Your task to perform on an android device: When is my next meeting? Image 0: 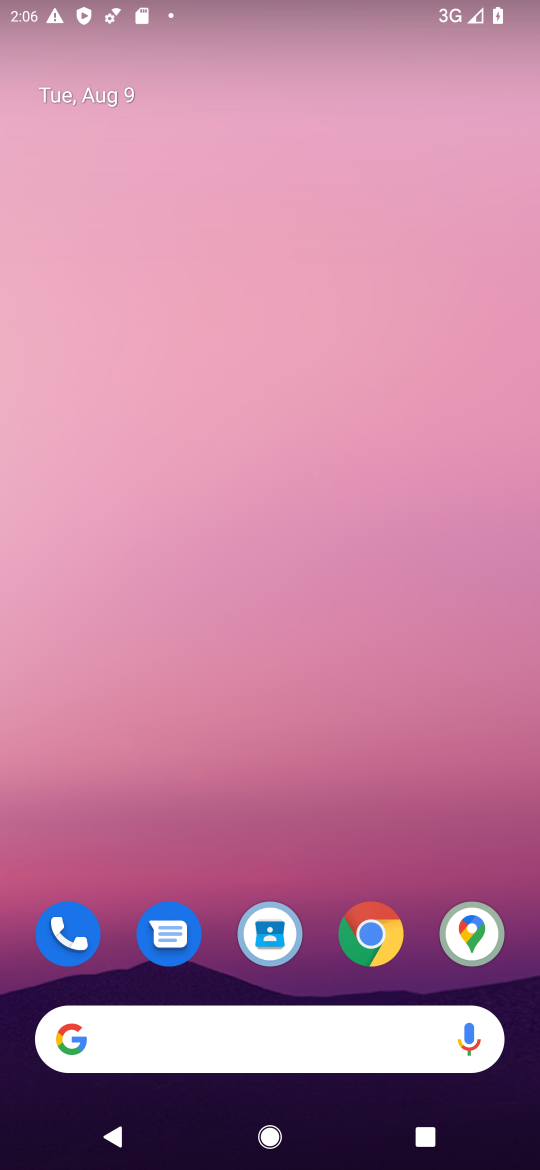
Step 0: drag from (336, 979) to (521, 42)
Your task to perform on an android device: When is my next meeting? Image 1: 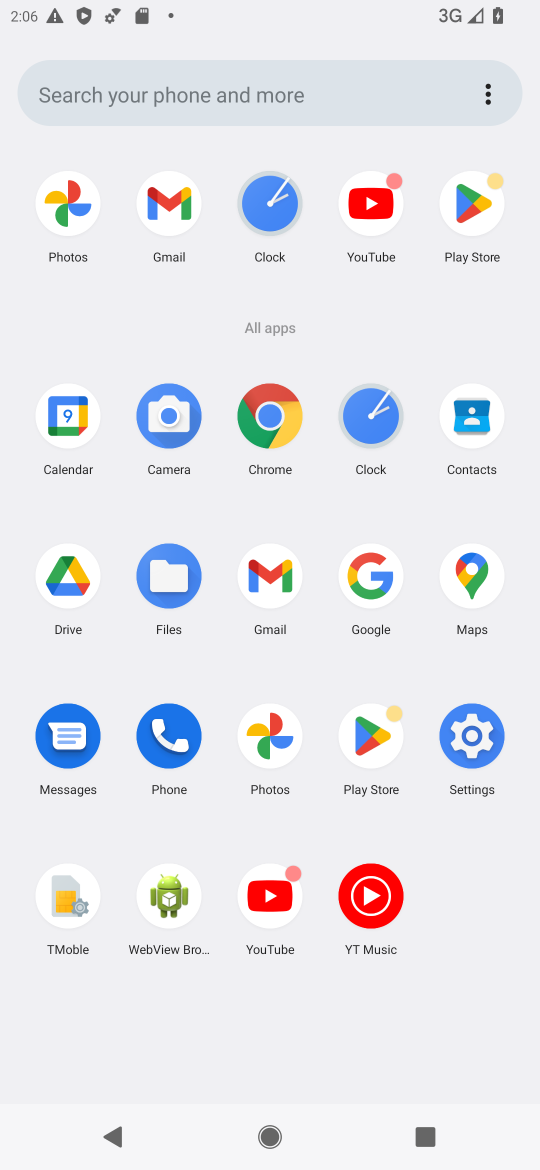
Step 1: click (78, 447)
Your task to perform on an android device: When is my next meeting? Image 2: 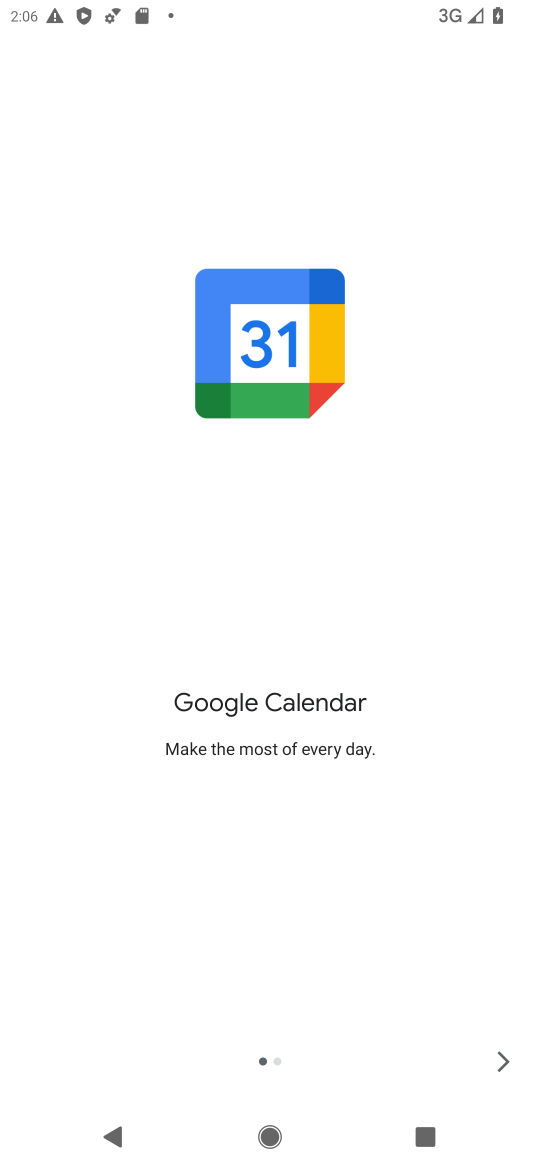
Step 2: task complete